Your task to perform on an android device: Open Wikipedia Image 0: 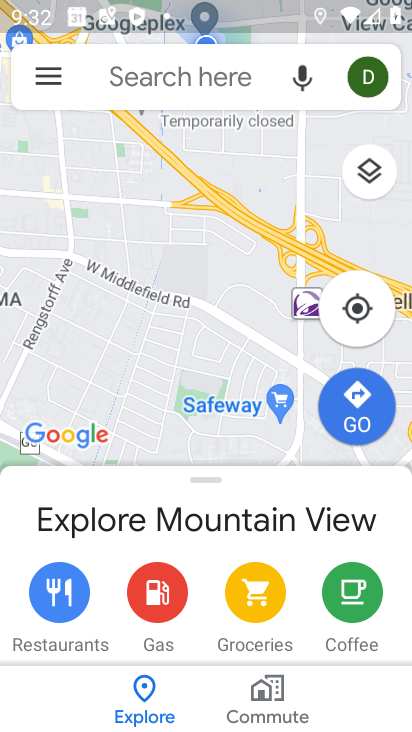
Step 0: press home button
Your task to perform on an android device: Open Wikipedia Image 1: 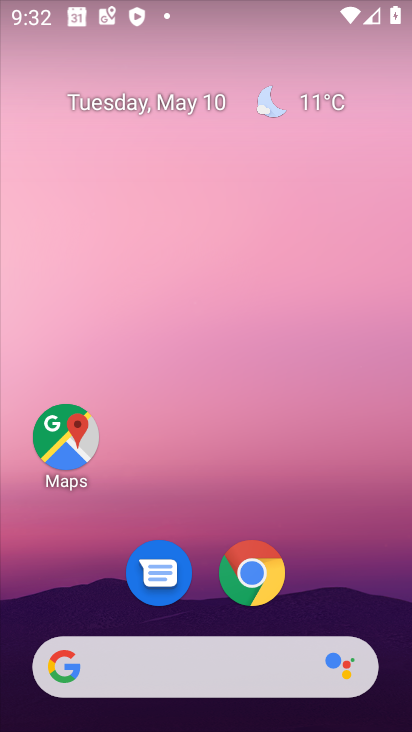
Step 1: click (259, 575)
Your task to perform on an android device: Open Wikipedia Image 2: 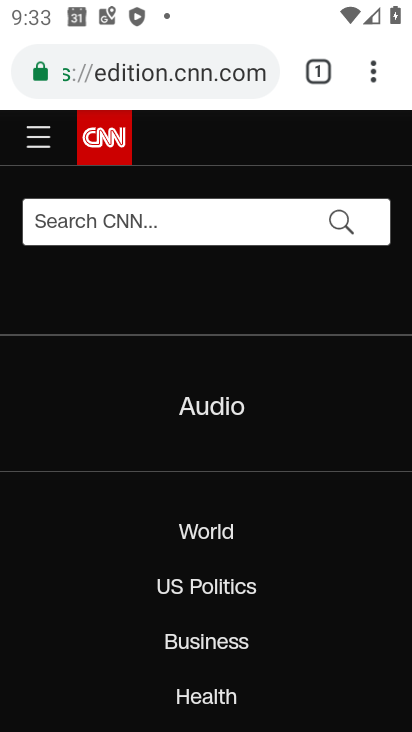
Step 2: click (89, 74)
Your task to perform on an android device: Open Wikipedia Image 3: 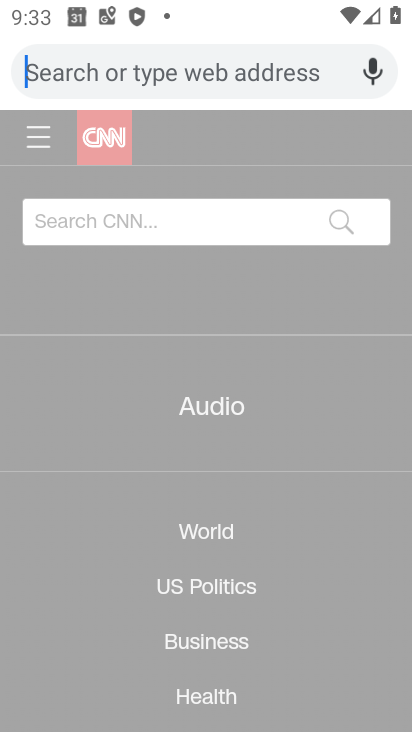
Step 3: click (115, 76)
Your task to perform on an android device: Open Wikipedia Image 4: 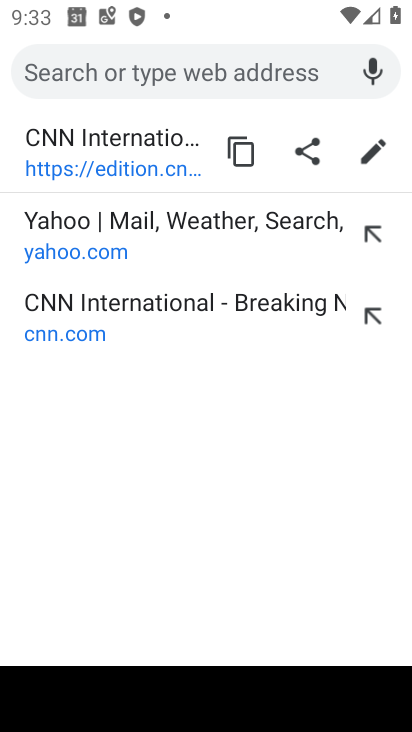
Step 4: type "wikipedia"
Your task to perform on an android device: Open Wikipedia Image 5: 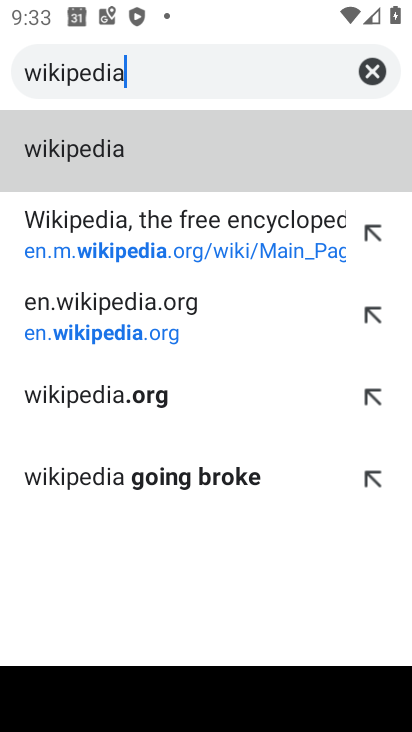
Step 5: click (124, 150)
Your task to perform on an android device: Open Wikipedia Image 6: 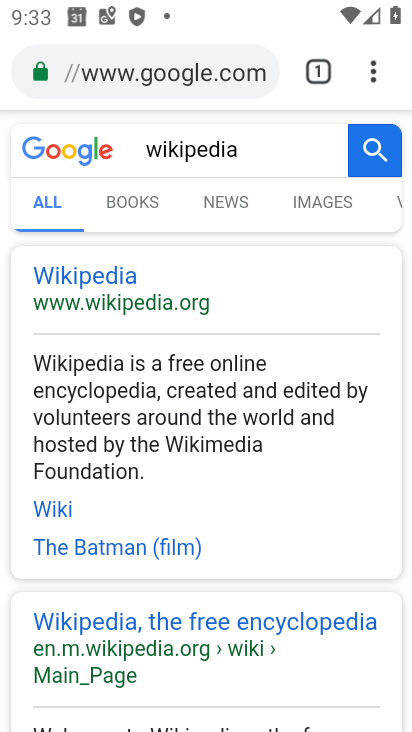
Step 6: click (64, 310)
Your task to perform on an android device: Open Wikipedia Image 7: 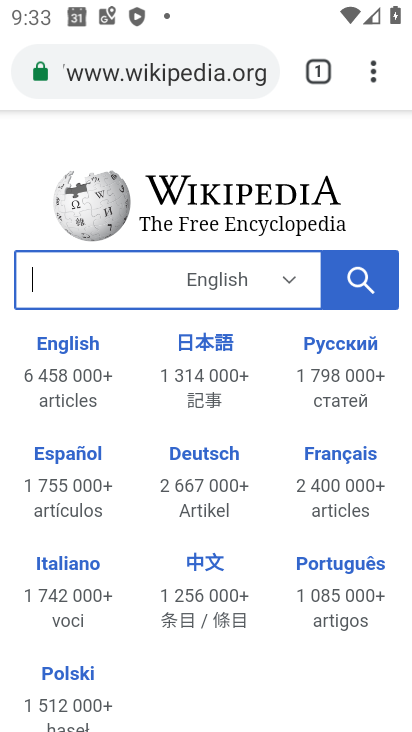
Step 7: task complete